Your task to perform on an android device: Show the shopping cart on target. Search for "bose soundsport free" on target, select the first entry, add it to the cart, then select checkout. Image 0: 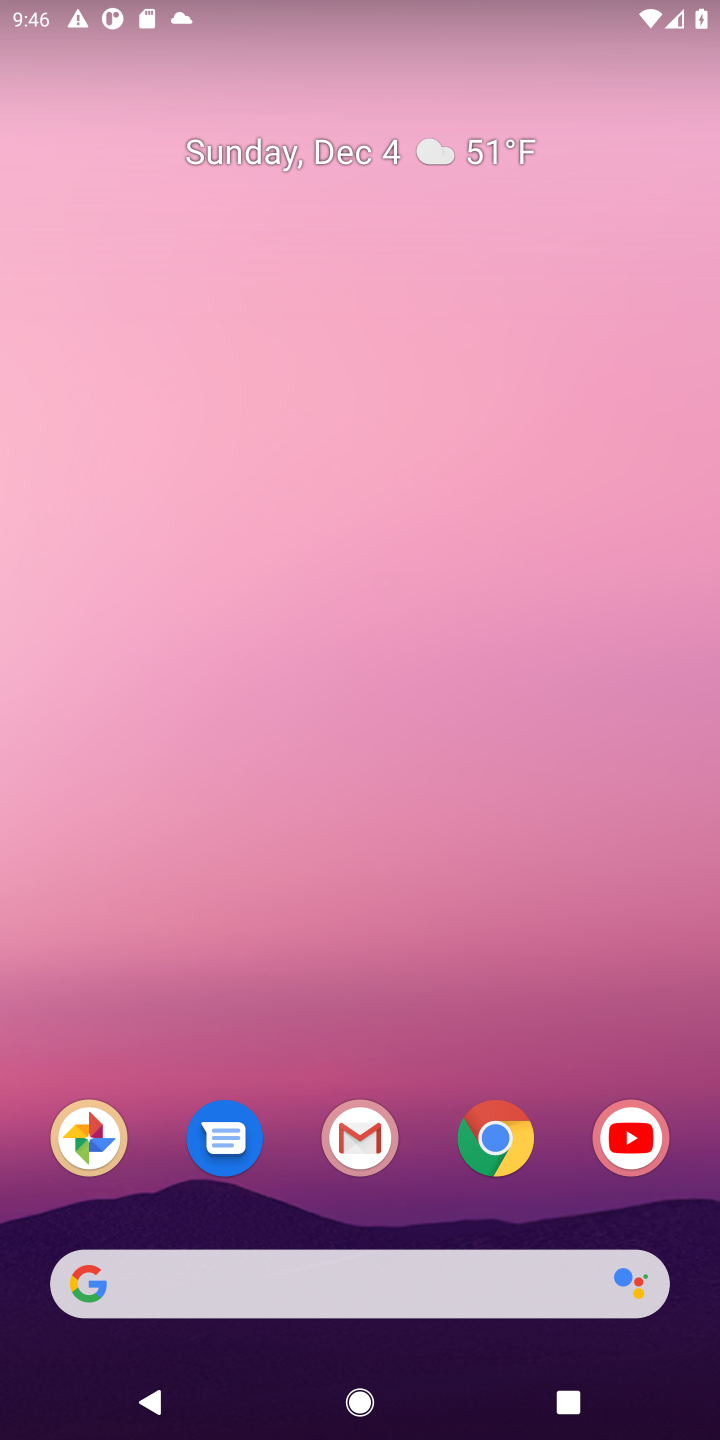
Step 0: click (498, 1132)
Your task to perform on an android device: Show the shopping cart on target. Search for "bose soundsport free" on target, select the first entry, add it to the cart, then select checkout. Image 1: 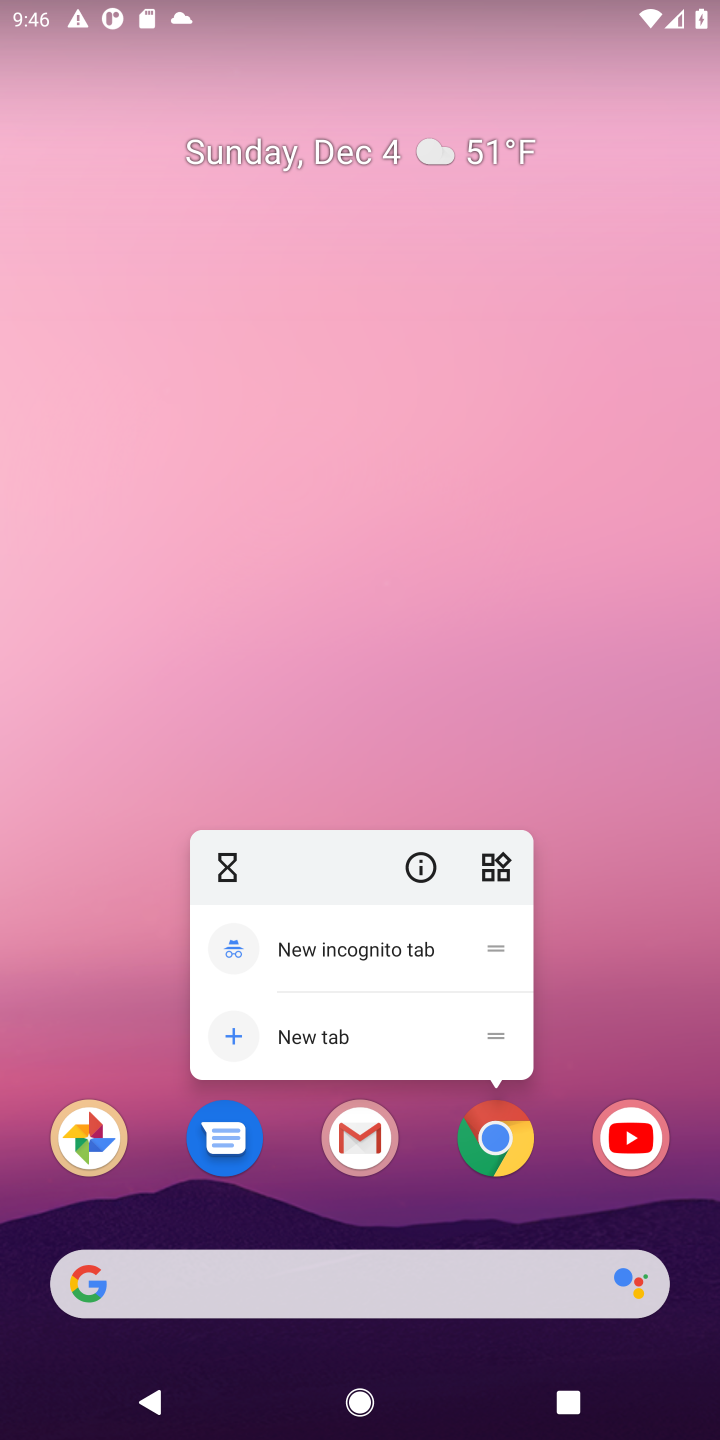
Step 1: click (502, 1139)
Your task to perform on an android device: Show the shopping cart on target. Search for "bose soundsport free" on target, select the first entry, add it to the cart, then select checkout. Image 2: 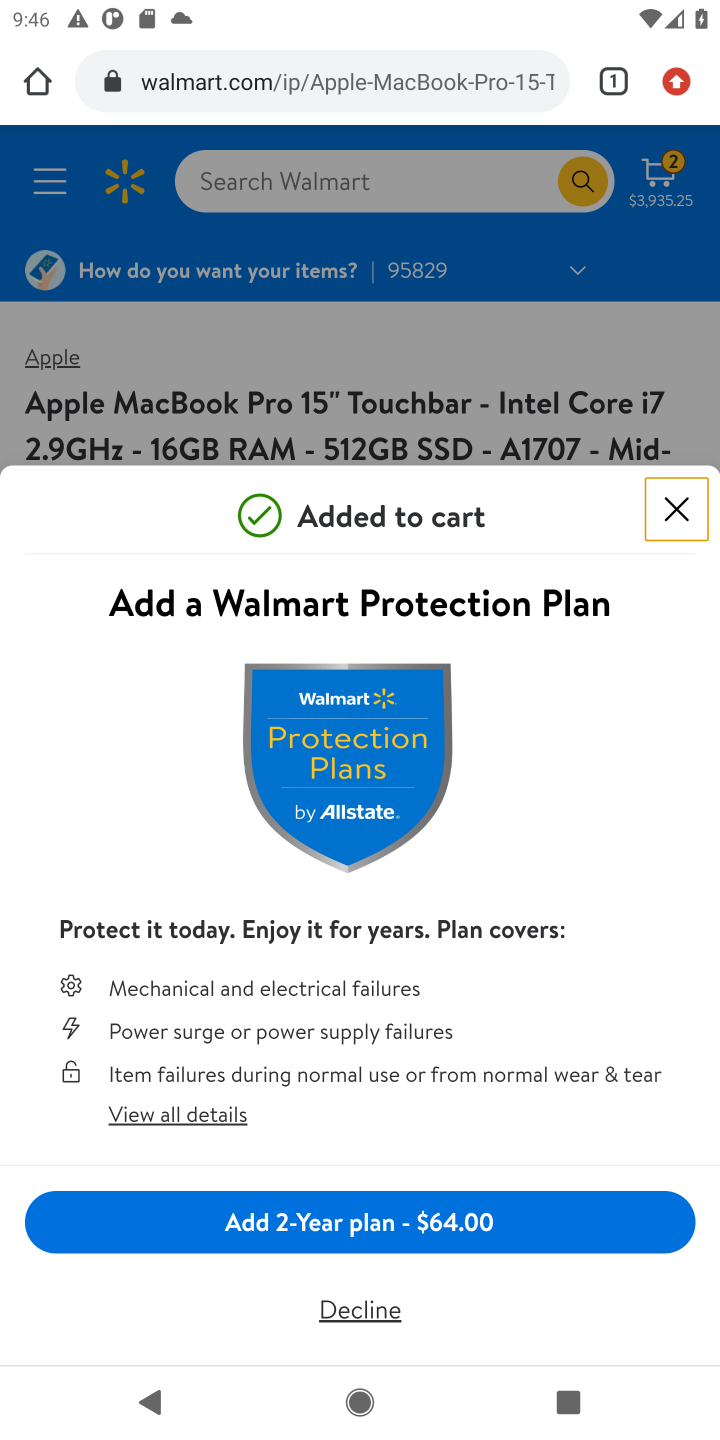
Step 2: click (687, 527)
Your task to perform on an android device: Show the shopping cart on target. Search for "bose soundsport free" on target, select the first entry, add it to the cart, then select checkout. Image 3: 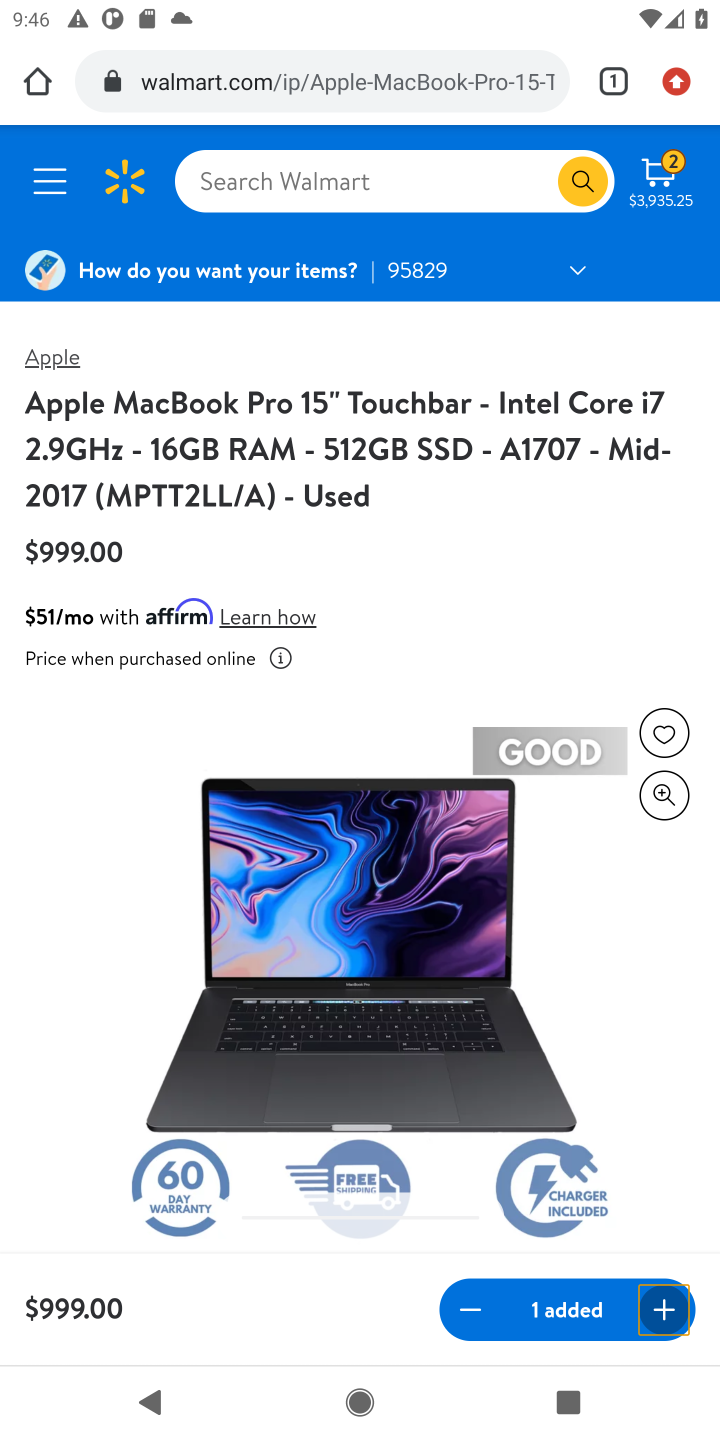
Step 3: click (478, 42)
Your task to perform on an android device: Show the shopping cart on target. Search for "bose soundsport free" on target, select the first entry, add it to the cart, then select checkout. Image 4: 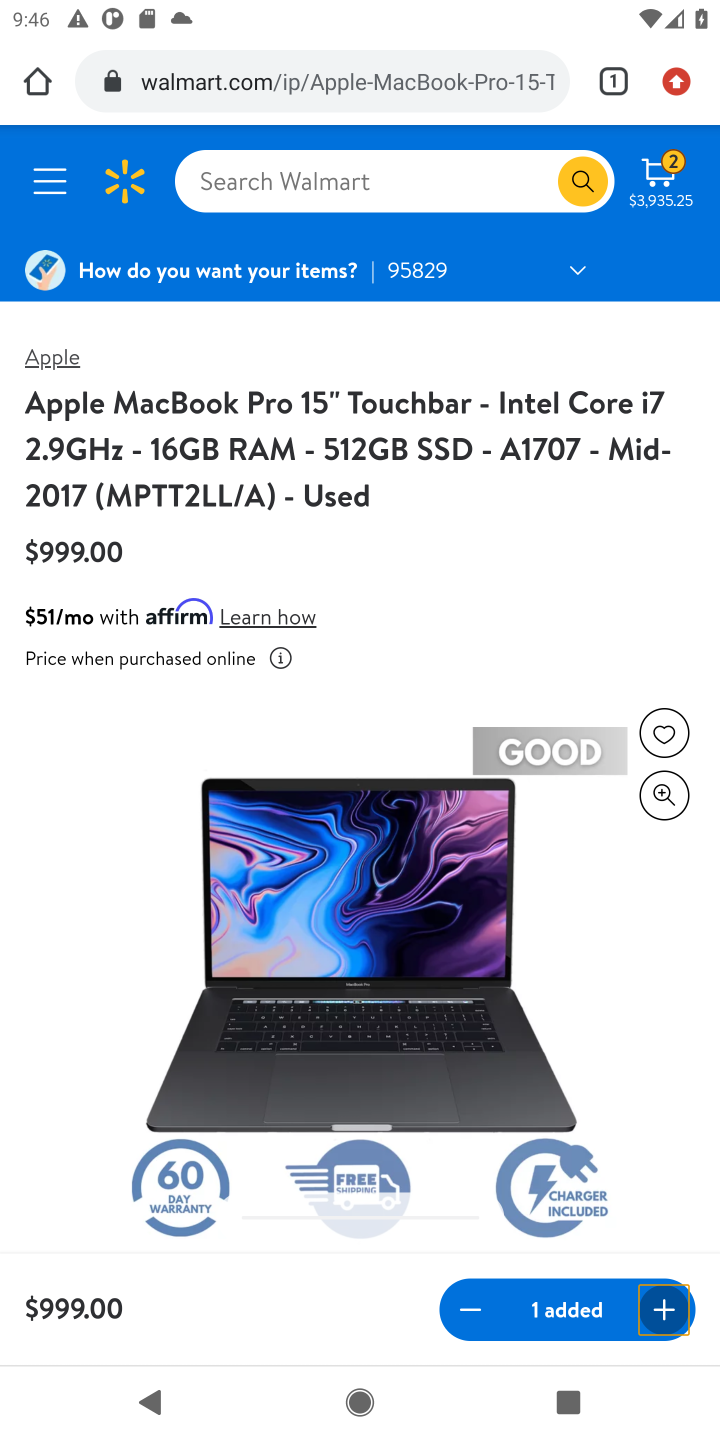
Step 4: click (444, 69)
Your task to perform on an android device: Show the shopping cart on target. Search for "bose soundsport free" on target, select the first entry, add it to the cart, then select checkout. Image 5: 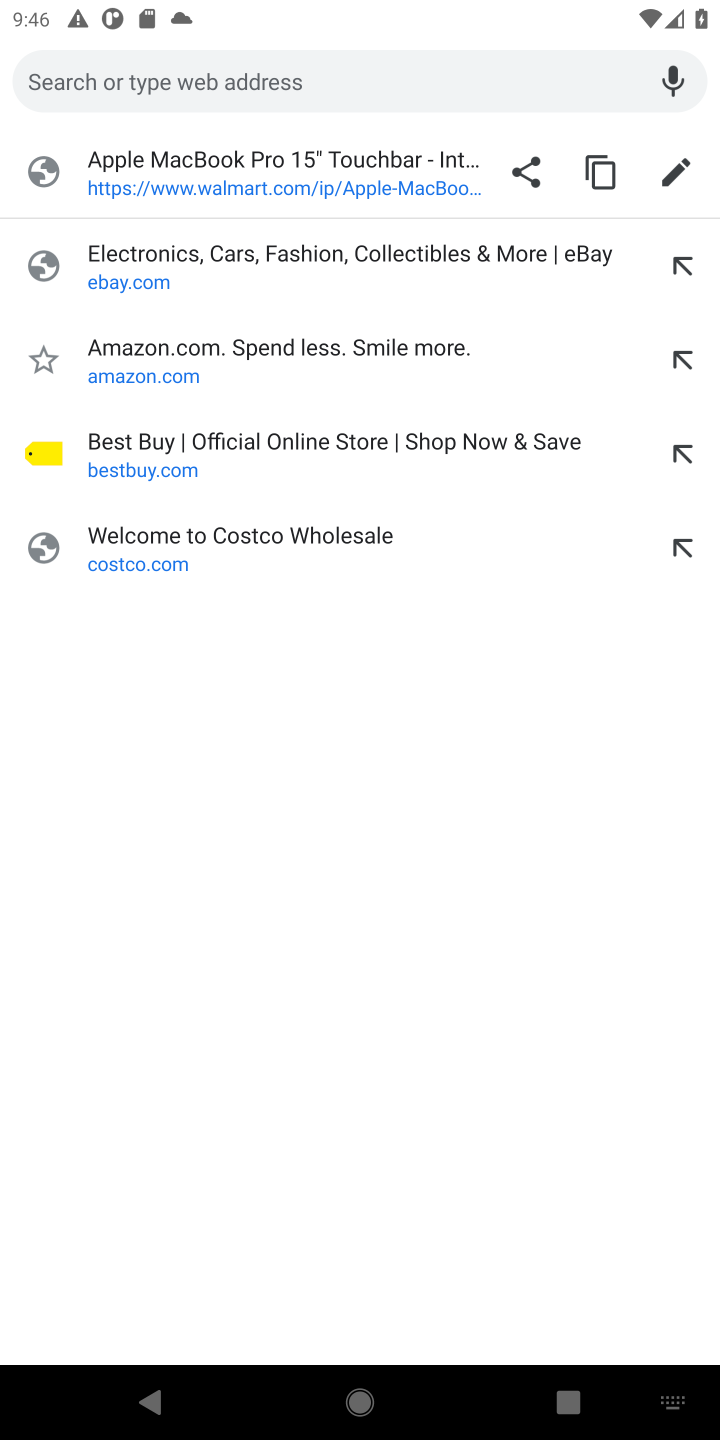
Step 5: type "target"
Your task to perform on an android device: Show the shopping cart on target. Search for "bose soundsport free" on target, select the first entry, add it to the cart, then select checkout. Image 6: 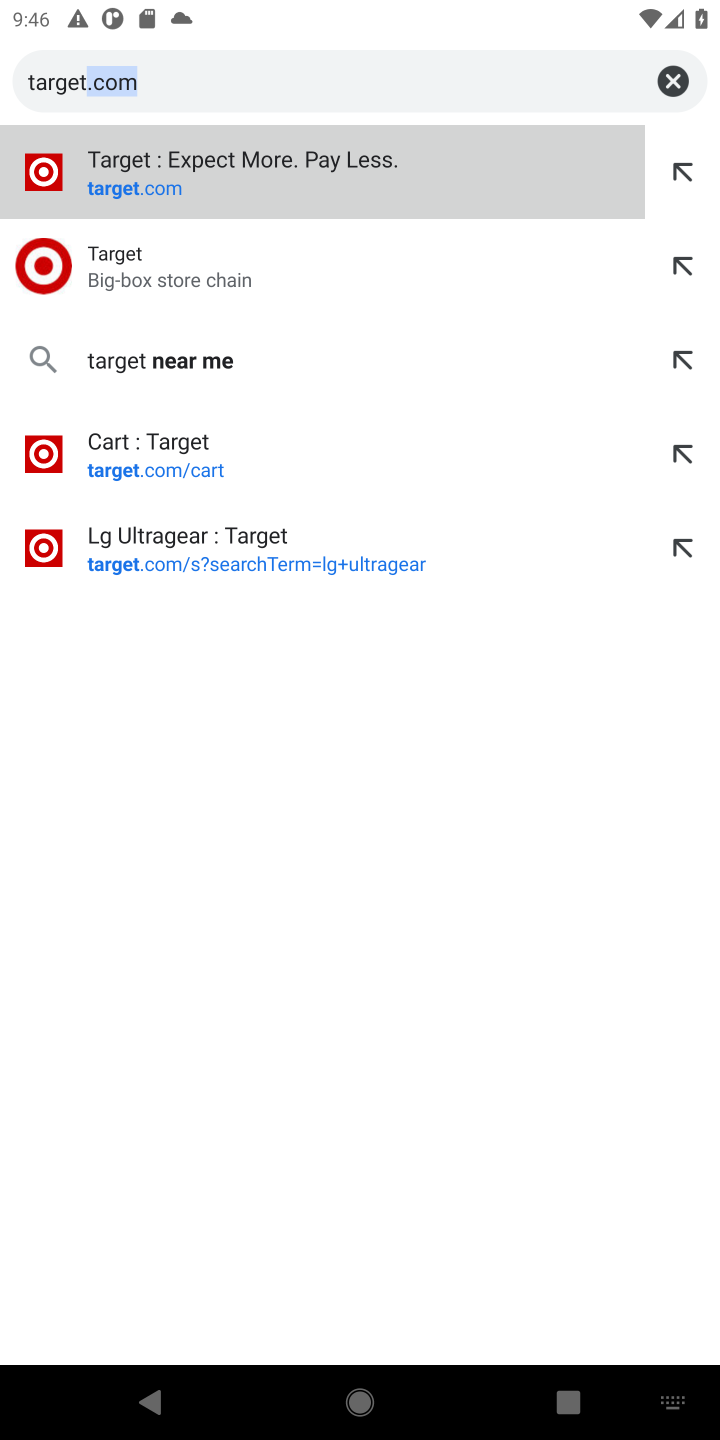
Step 6: press enter
Your task to perform on an android device: Show the shopping cart on target. Search for "bose soundsport free" on target, select the first entry, add it to the cart, then select checkout. Image 7: 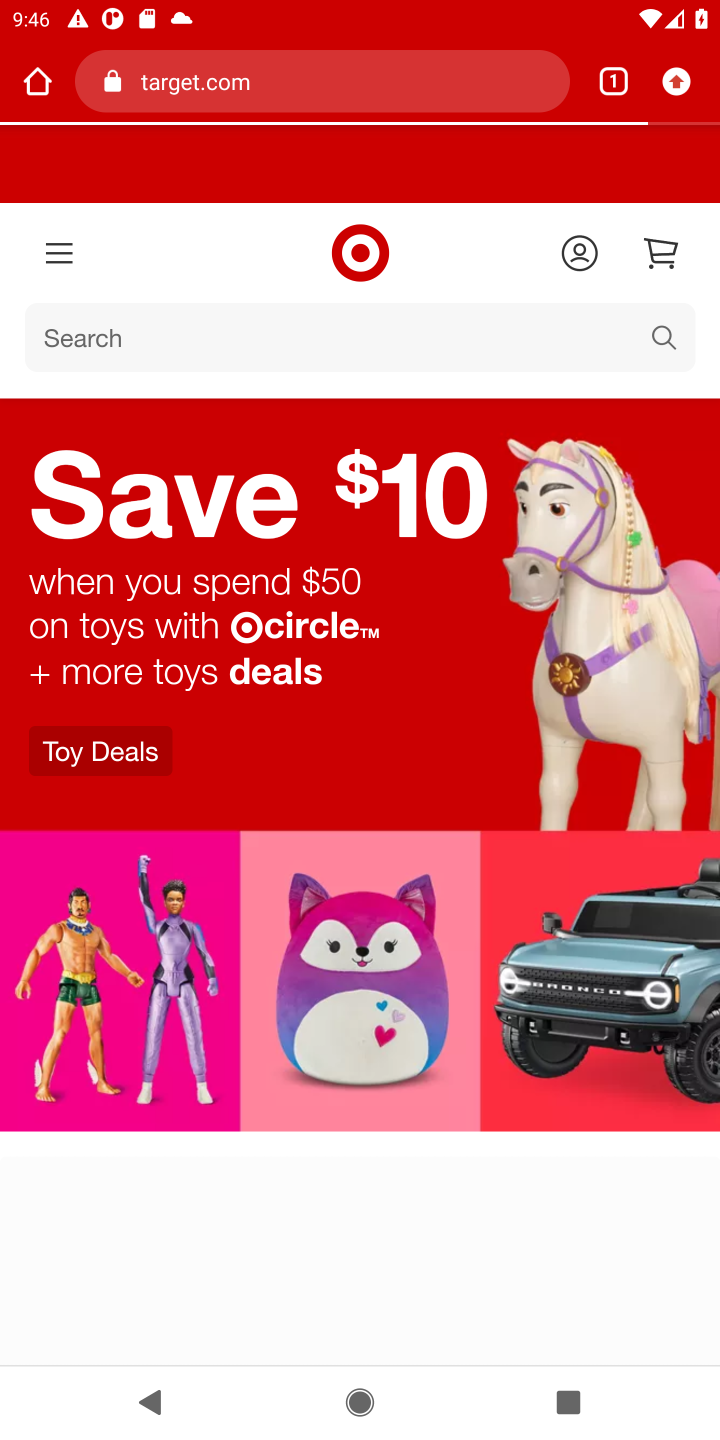
Step 7: click (667, 244)
Your task to perform on an android device: Show the shopping cart on target. Search for "bose soundsport free" on target, select the first entry, add it to the cart, then select checkout. Image 8: 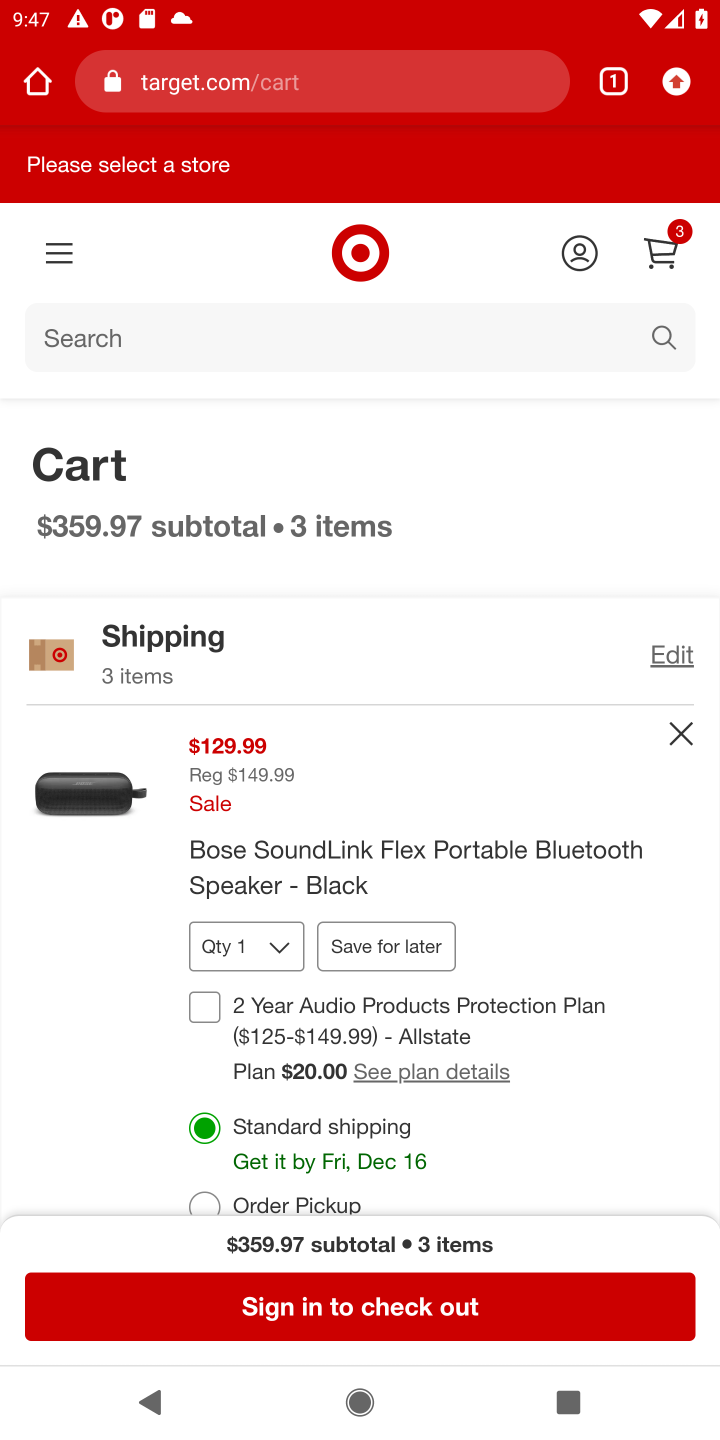
Step 8: click (653, 334)
Your task to perform on an android device: Show the shopping cart on target. Search for "bose soundsport free" on target, select the first entry, add it to the cart, then select checkout. Image 9: 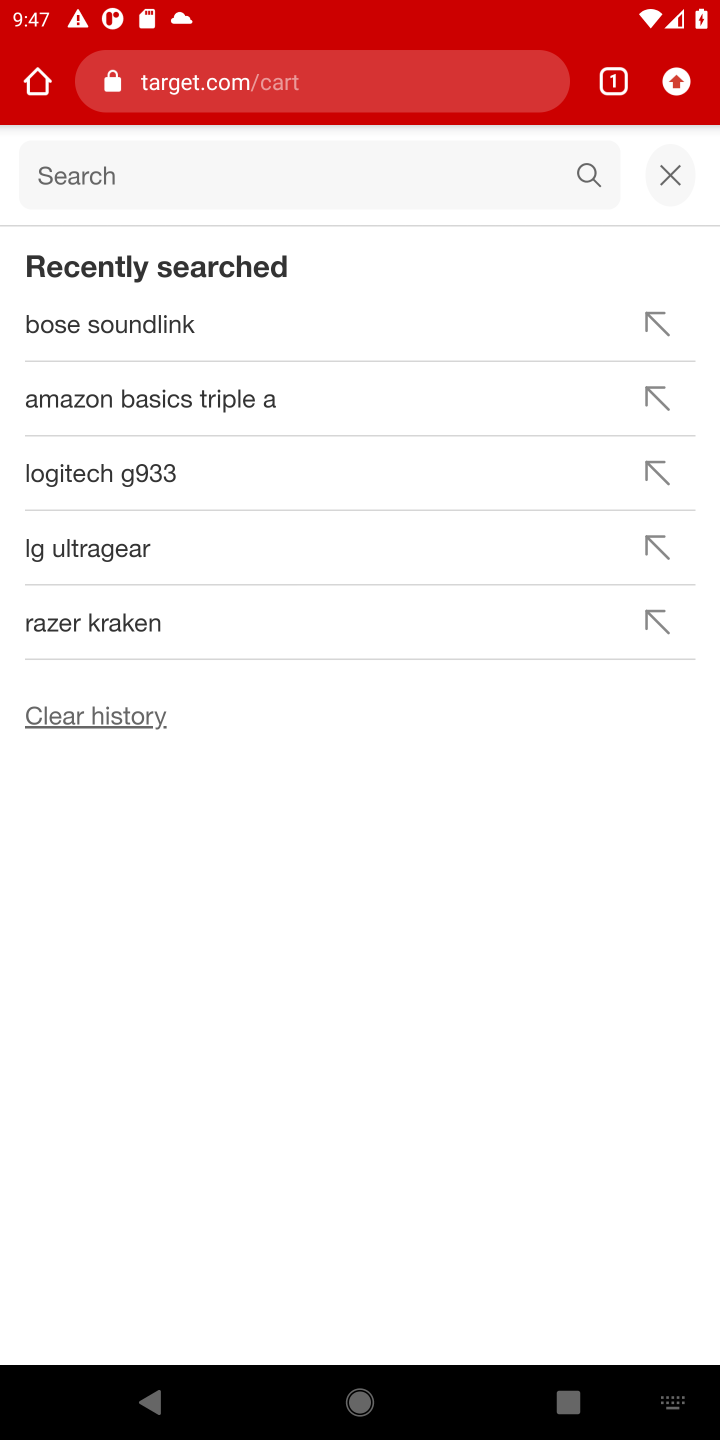
Step 9: type "bose soundsport free"
Your task to perform on an android device: Show the shopping cart on target. Search for "bose soundsport free" on target, select the first entry, add it to the cart, then select checkout. Image 10: 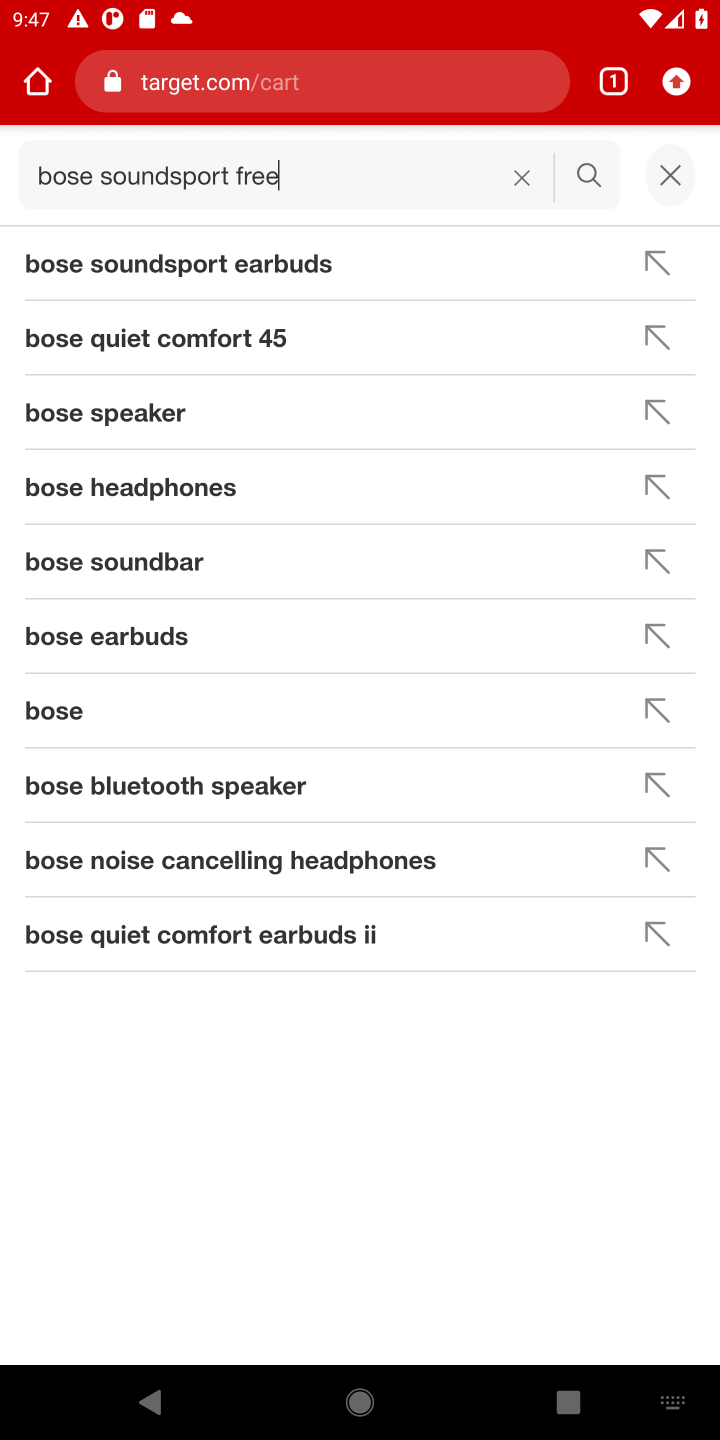
Step 10: press enter
Your task to perform on an android device: Show the shopping cart on target. Search for "bose soundsport free" on target, select the first entry, add it to the cart, then select checkout. Image 11: 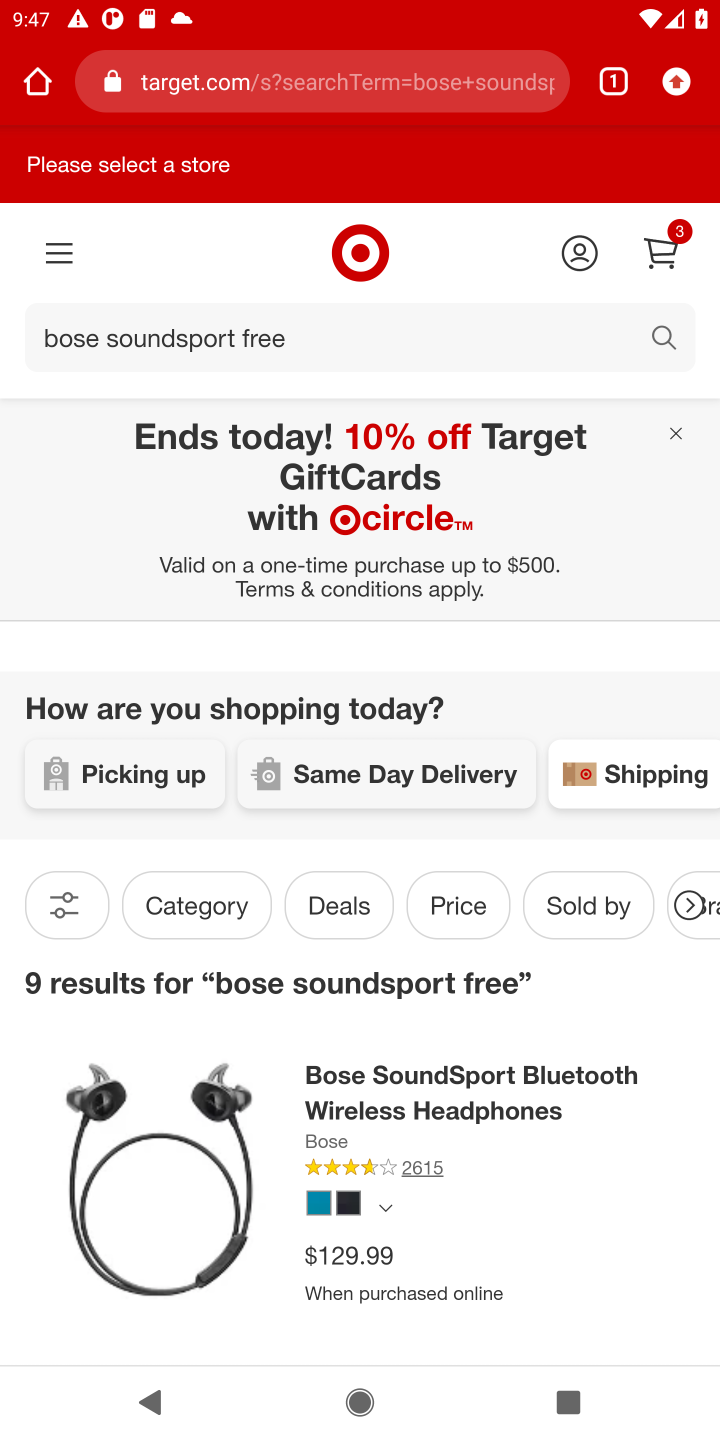
Step 11: task complete